Your task to perform on an android device: read, delete, or share a saved page in the chrome app Image 0: 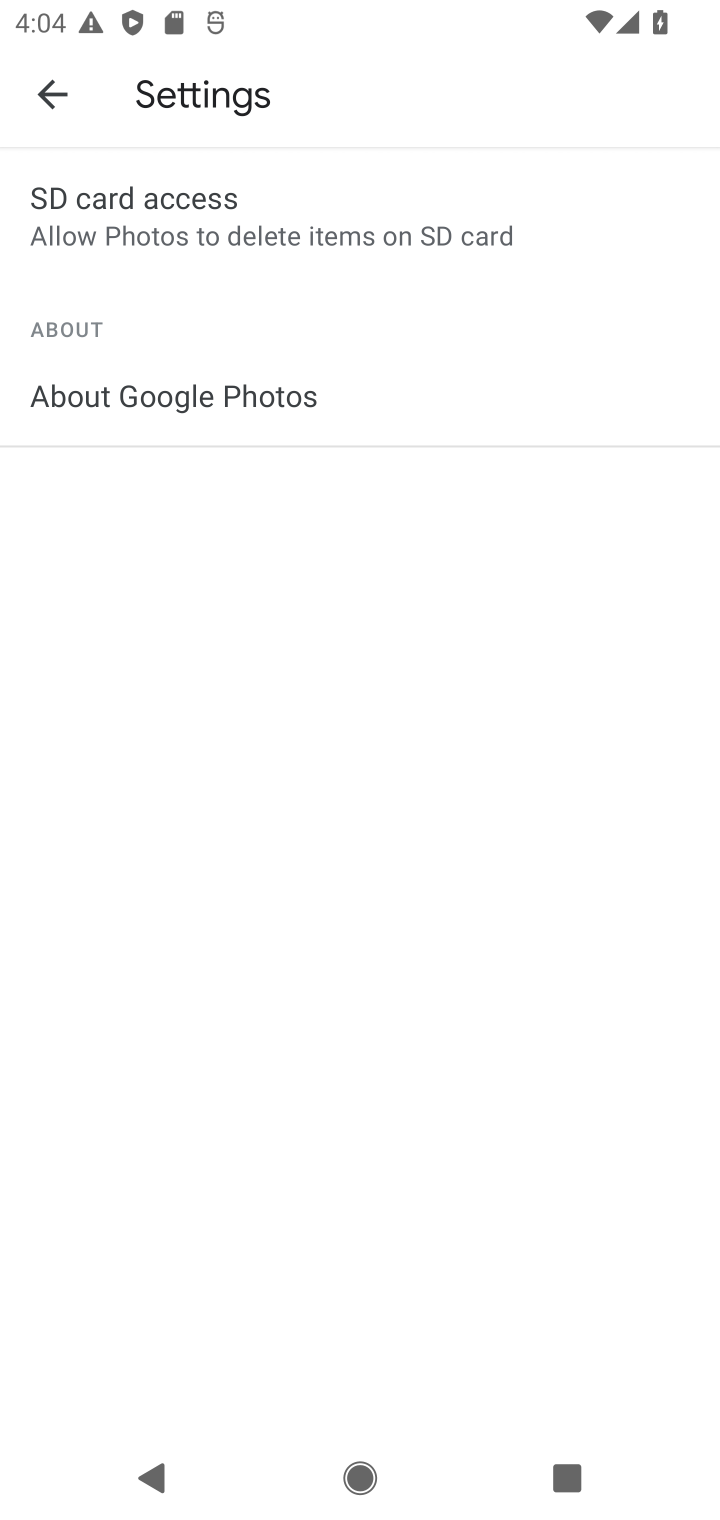
Step 0: press home button
Your task to perform on an android device: read, delete, or share a saved page in the chrome app Image 1: 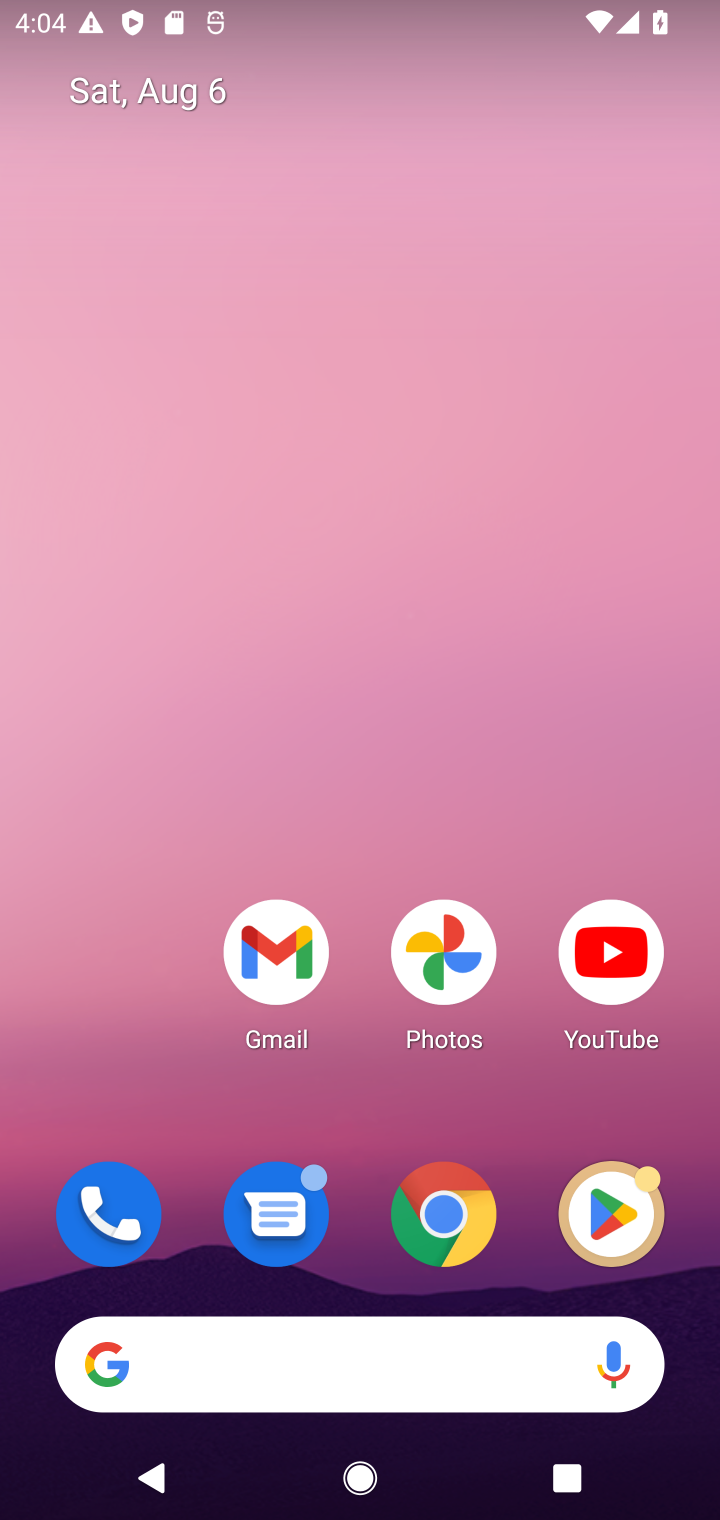
Step 1: click (429, 1225)
Your task to perform on an android device: read, delete, or share a saved page in the chrome app Image 2: 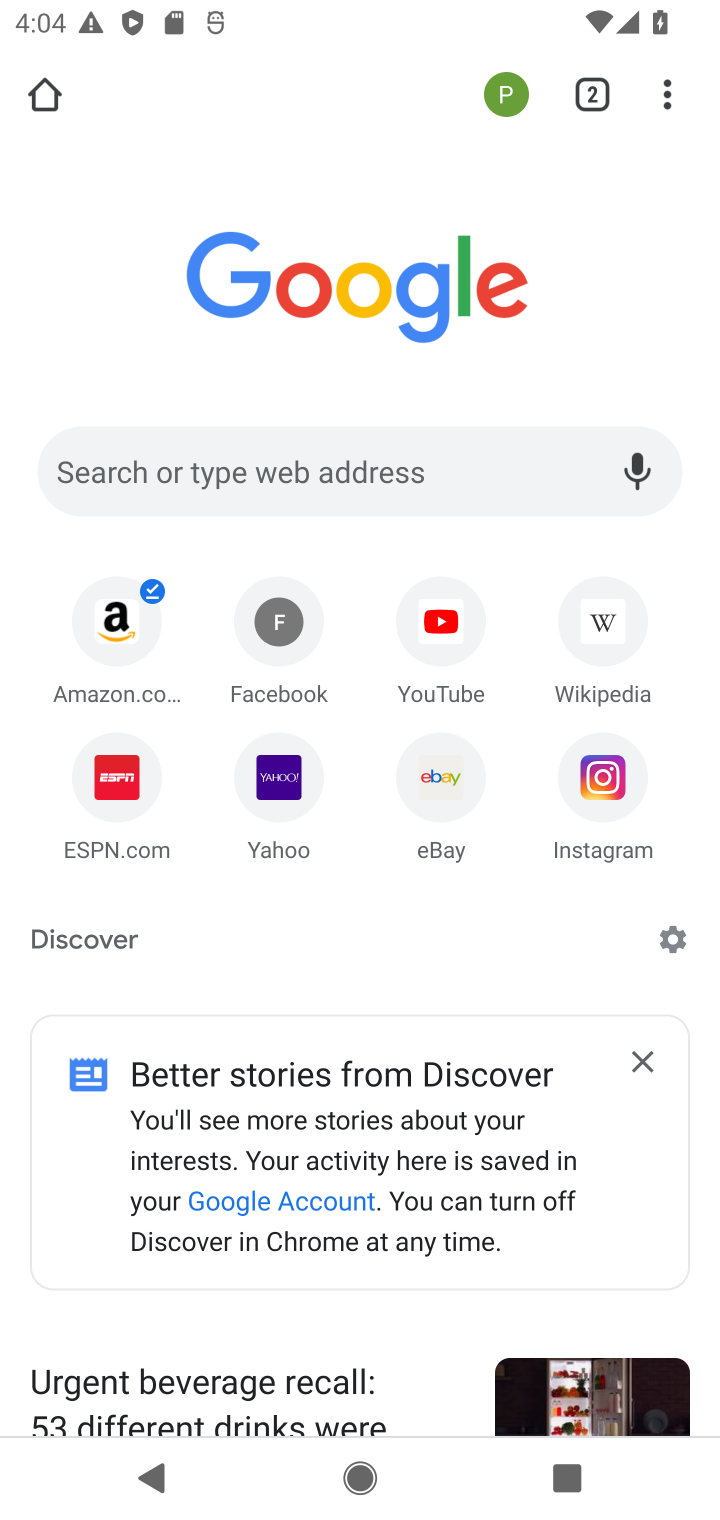
Step 2: click (665, 102)
Your task to perform on an android device: read, delete, or share a saved page in the chrome app Image 3: 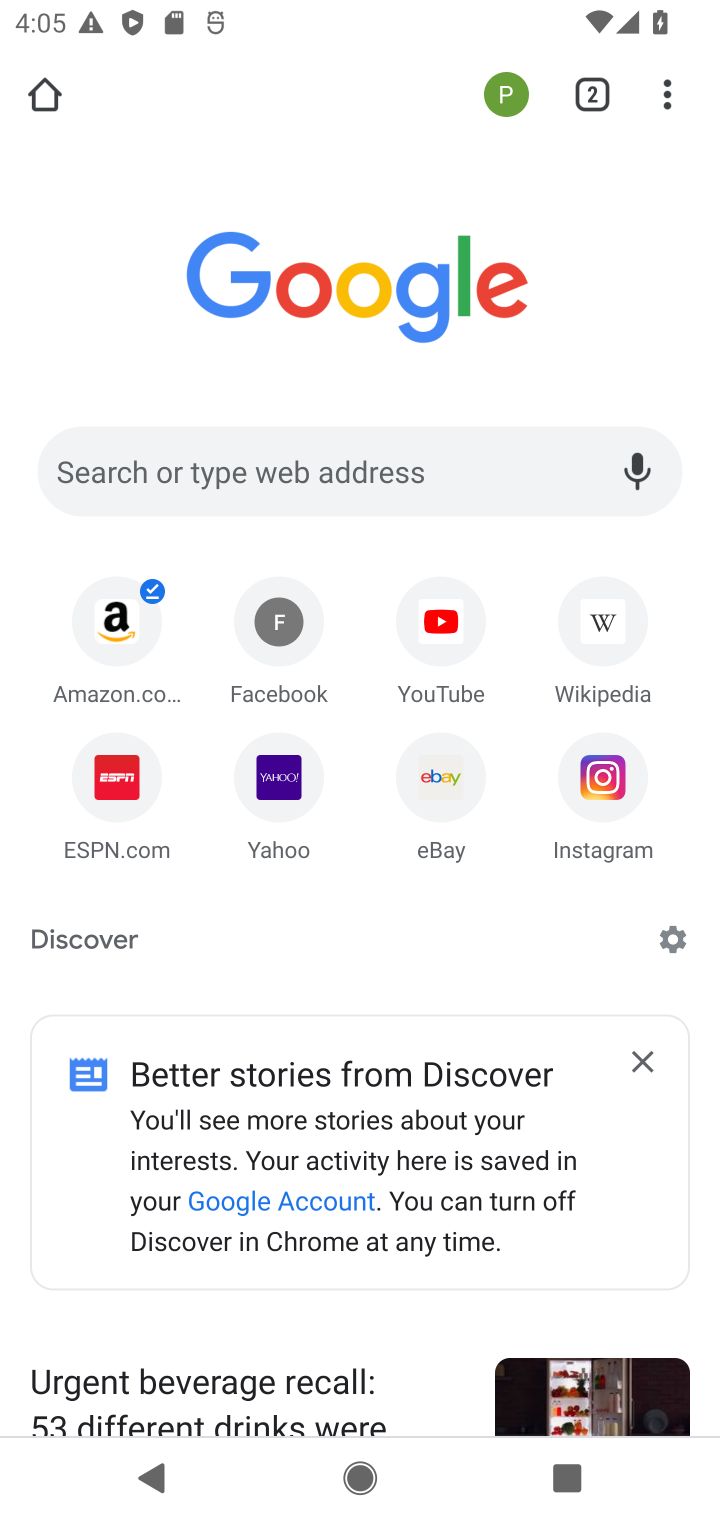
Step 3: click (665, 87)
Your task to perform on an android device: read, delete, or share a saved page in the chrome app Image 4: 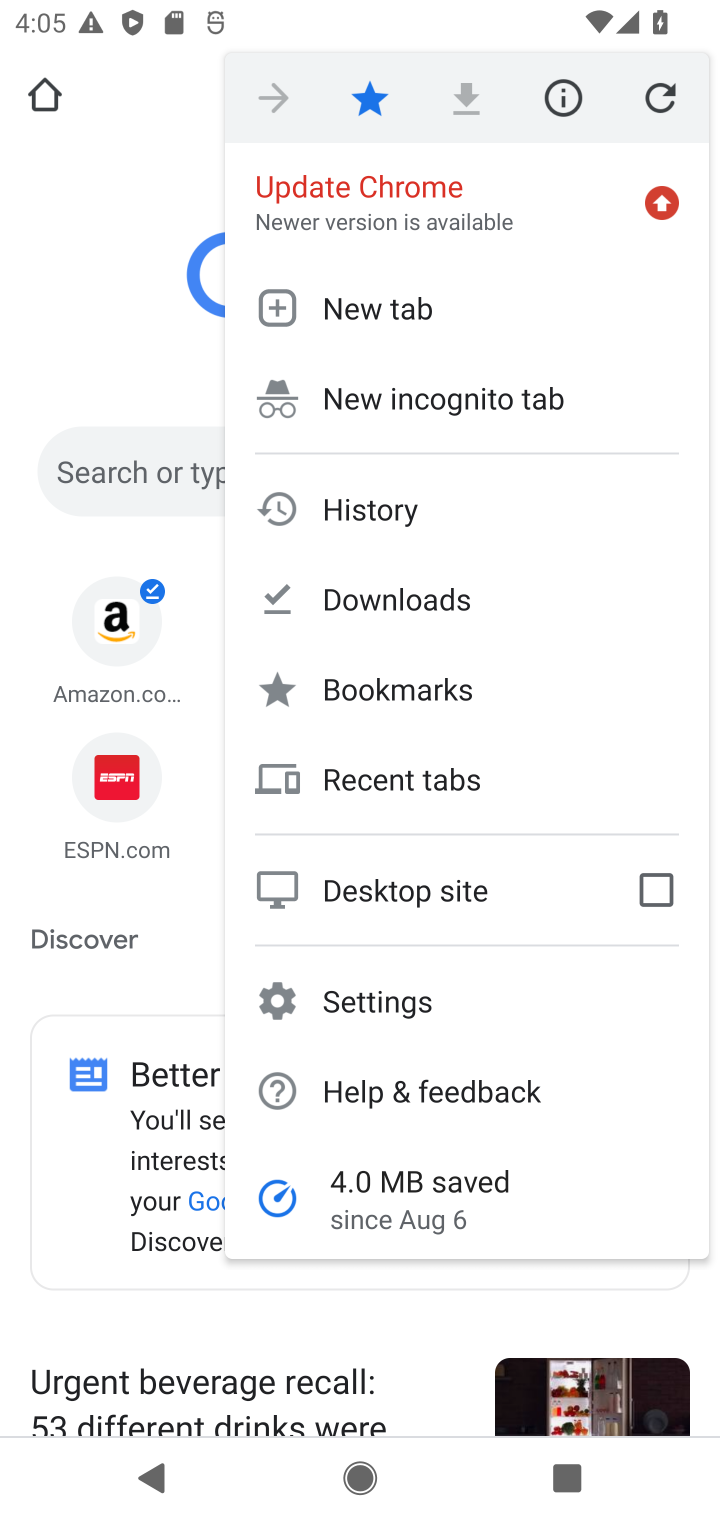
Step 4: task complete